Your task to perform on an android device: toggle show notifications on the lock screen Image 0: 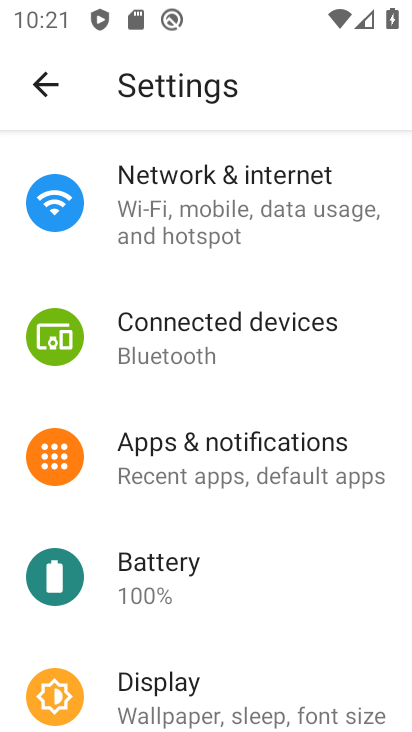
Step 0: click (298, 473)
Your task to perform on an android device: toggle show notifications on the lock screen Image 1: 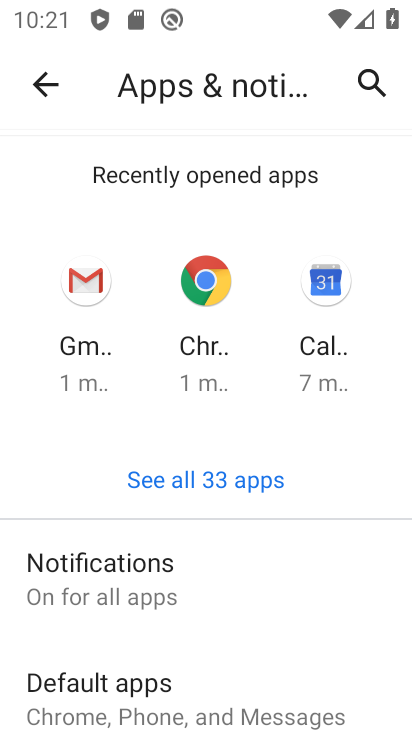
Step 1: drag from (246, 602) to (220, 125)
Your task to perform on an android device: toggle show notifications on the lock screen Image 2: 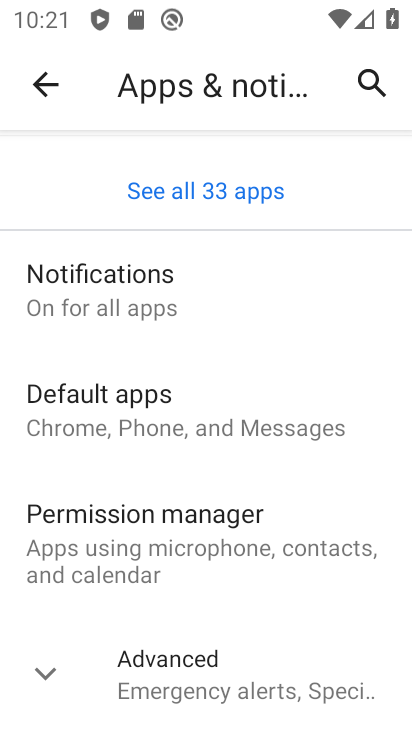
Step 2: click (159, 281)
Your task to perform on an android device: toggle show notifications on the lock screen Image 3: 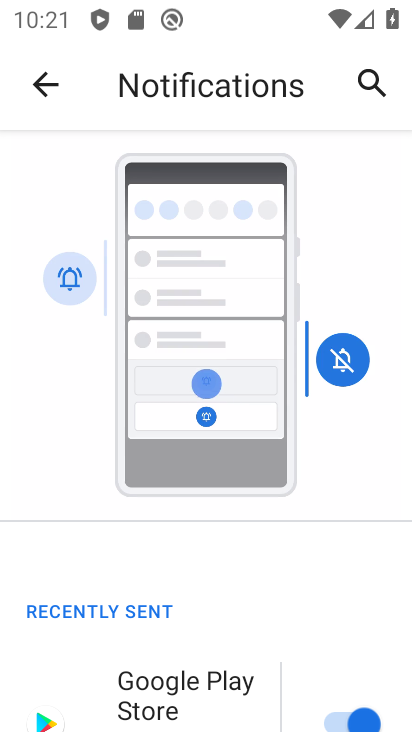
Step 3: drag from (258, 605) to (265, 25)
Your task to perform on an android device: toggle show notifications on the lock screen Image 4: 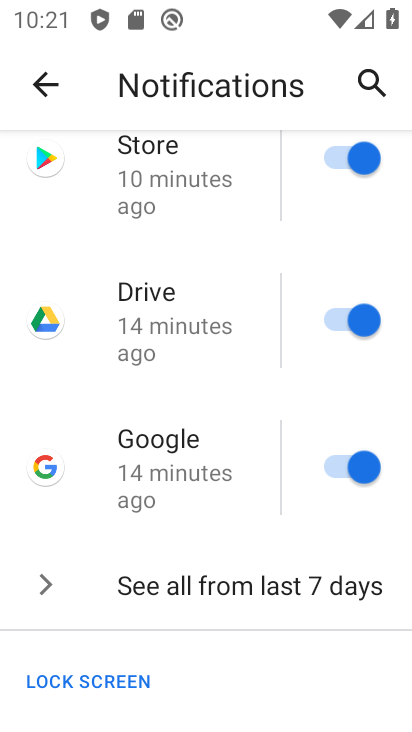
Step 4: drag from (257, 656) to (253, 13)
Your task to perform on an android device: toggle show notifications on the lock screen Image 5: 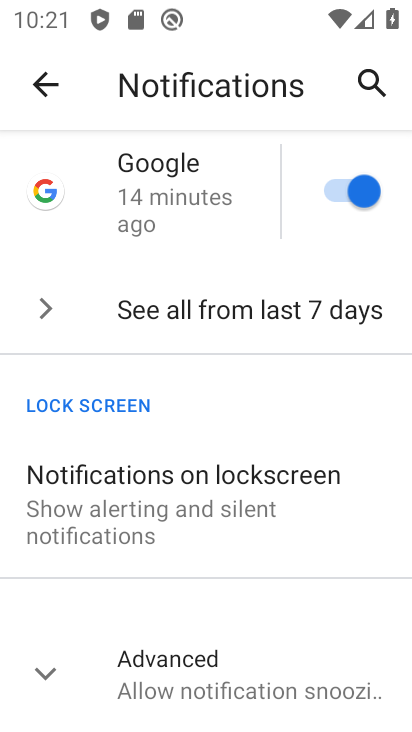
Step 5: click (212, 507)
Your task to perform on an android device: toggle show notifications on the lock screen Image 6: 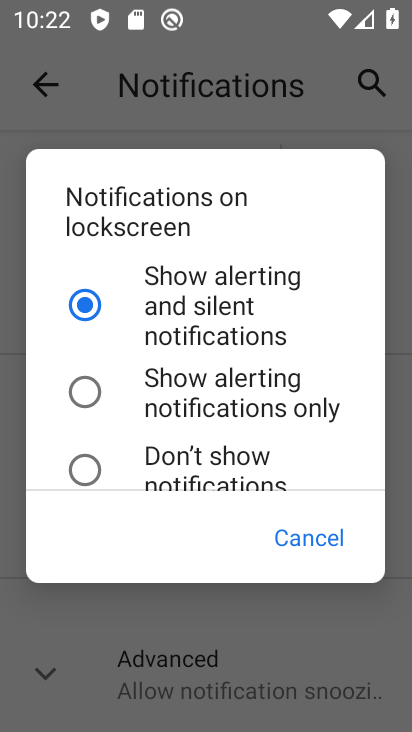
Step 6: click (132, 464)
Your task to perform on an android device: toggle show notifications on the lock screen Image 7: 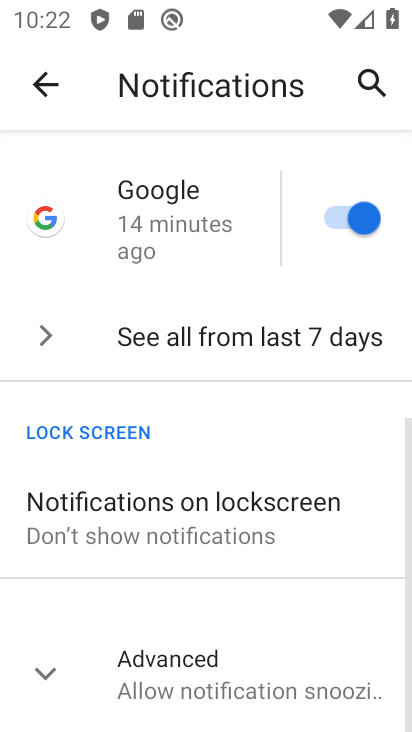
Step 7: task complete